Your task to perform on an android device: check data usage Image 0: 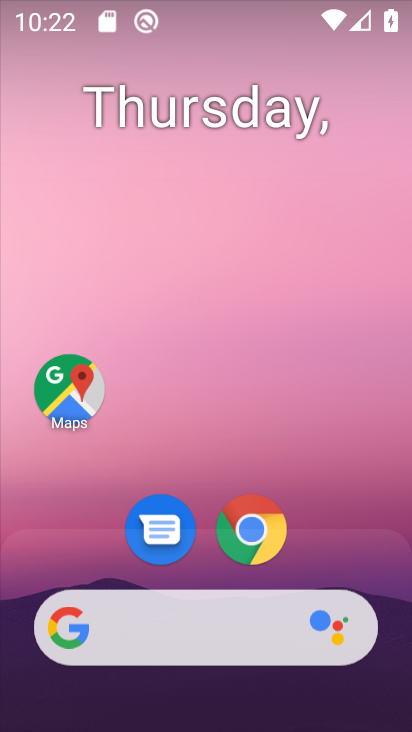
Step 0: drag from (245, 585) to (197, 46)
Your task to perform on an android device: check data usage Image 1: 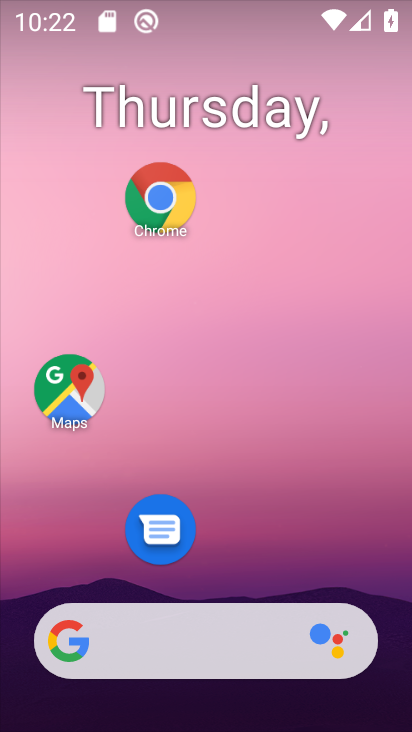
Step 1: drag from (225, 594) to (221, 0)
Your task to perform on an android device: check data usage Image 2: 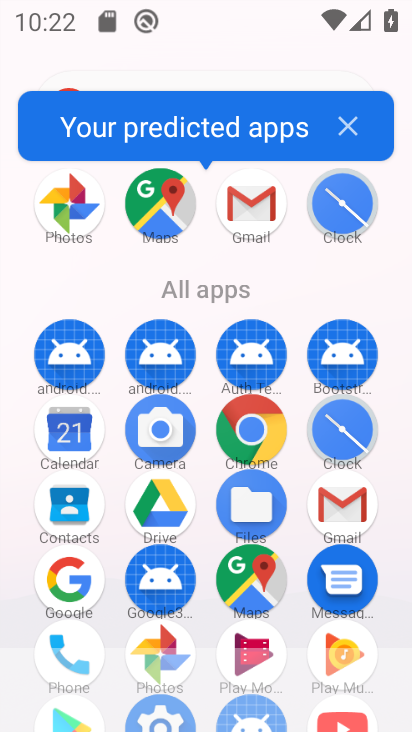
Step 2: drag from (202, 611) to (216, 264)
Your task to perform on an android device: check data usage Image 3: 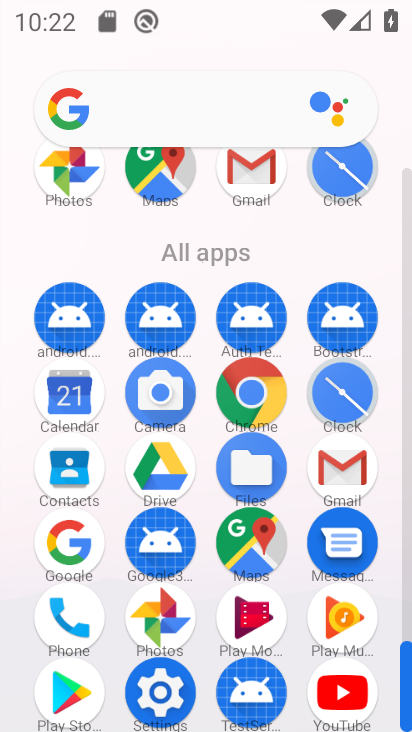
Step 3: click (153, 665)
Your task to perform on an android device: check data usage Image 4: 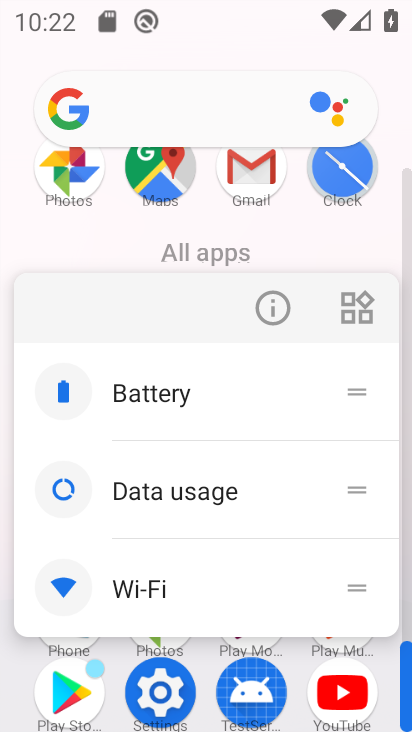
Step 4: click (171, 670)
Your task to perform on an android device: check data usage Image 5: 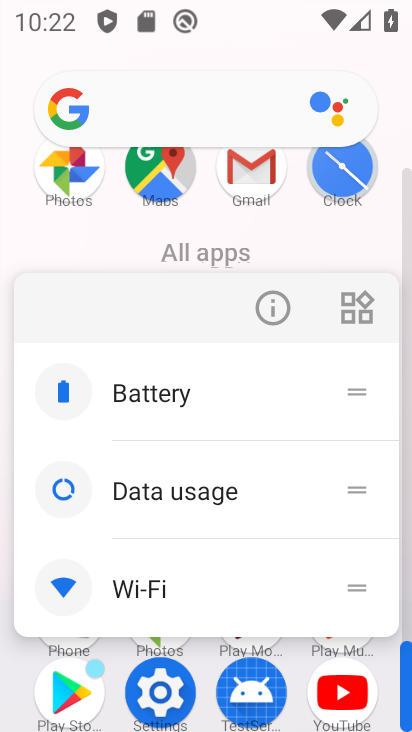
Step 5: click (178, 665)
Your task to perform on an android device: check data usage Image 6: 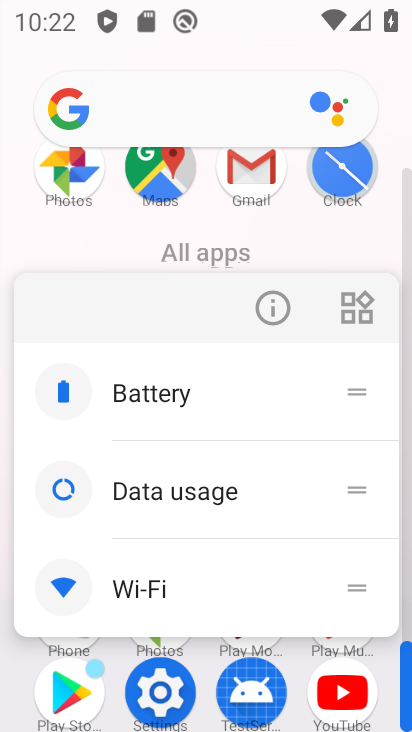
Step 6: click (178, 665)
Your task to perform on an android device: check data usage Image 7: 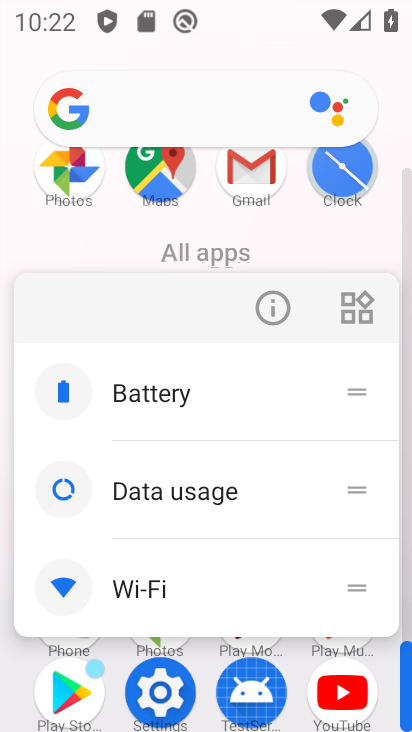
Step 7: click (168, 512)
Your task to perform on an android device: check data usage Image 8: 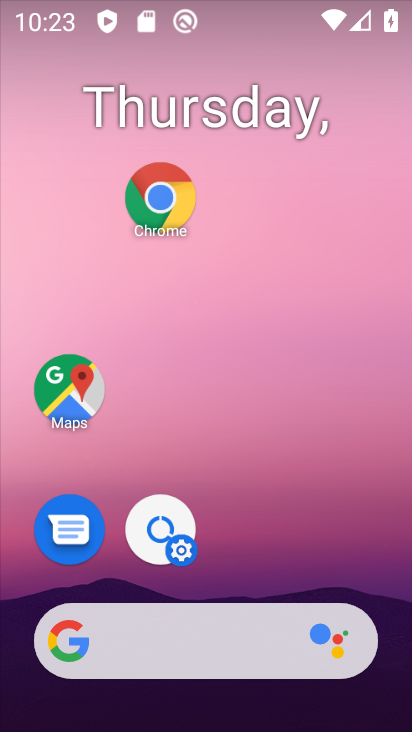
Step 8: click (161, 523)
Your task to perform on an android device: check data usage Image 9: 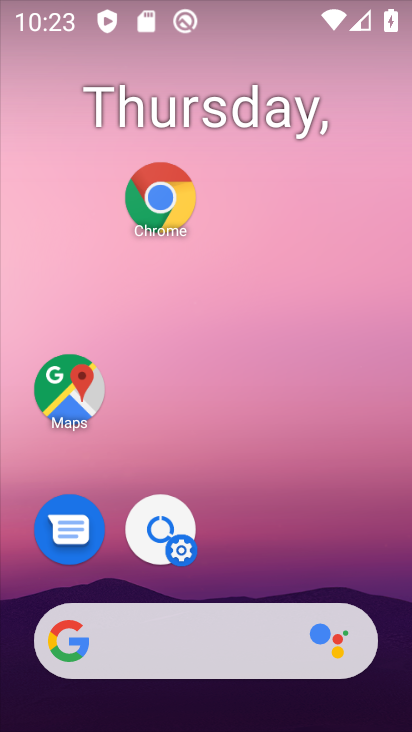
Step 9: click (159, 523)
Your task to perform on an android device: check data usage Image 10: 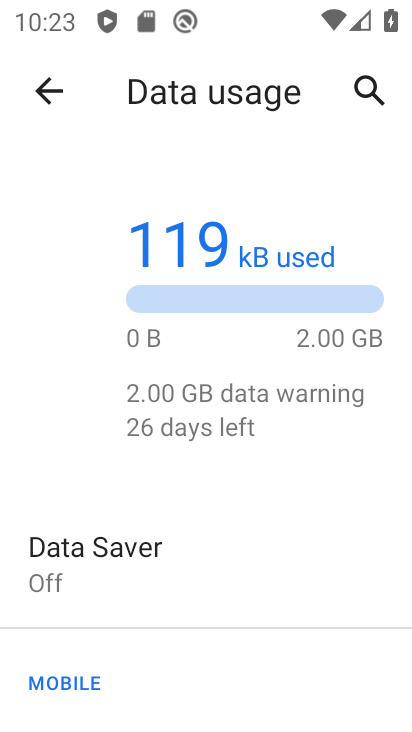
Step 10: task complete